Your task to perform on an android device: Is it going to rain today? Image 0: 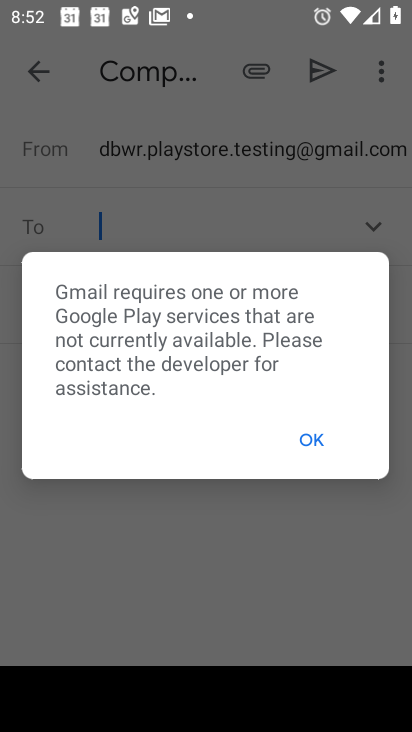
Step 0: click (308, 442)
Your task to perform on an android device: Is it going to rain today? Image 1: 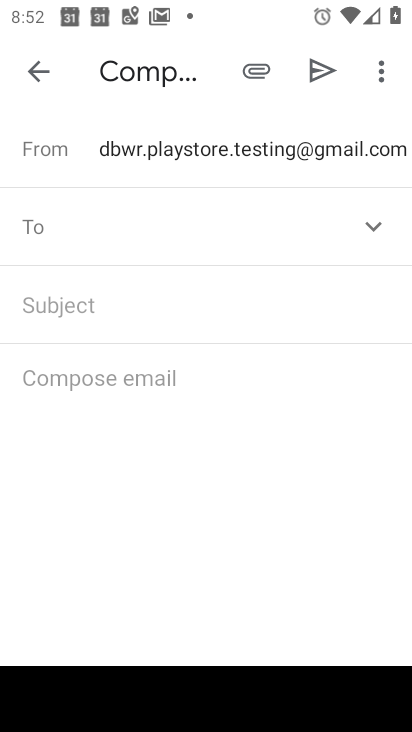
Step 1: click (36, 79)
Your task to perform on an android device: Is it going to rain today? Image 2: 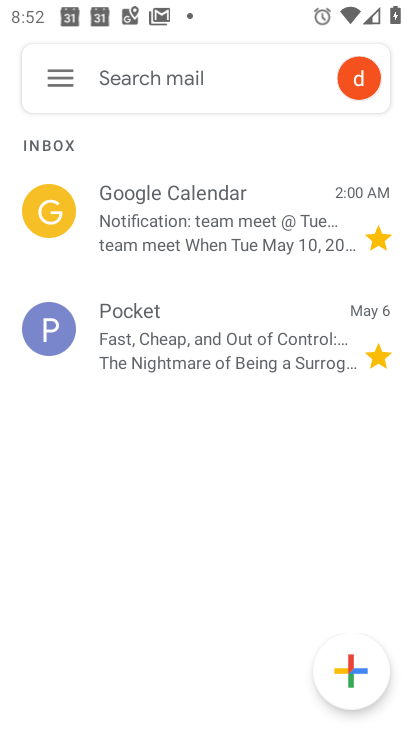
Step 2: press home button
Your task to perform on an android device: Is it going to rain today? Image 3: 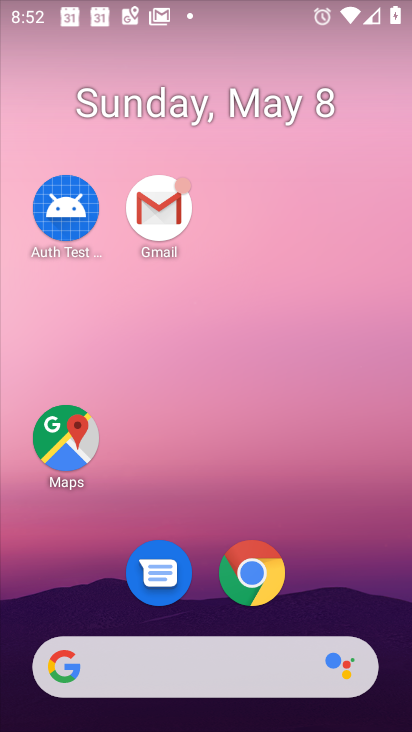
Step 3: drag from (2, 169) to (399, 478)
Your task to perform on an android device: Is it going to rain today? Image 4: 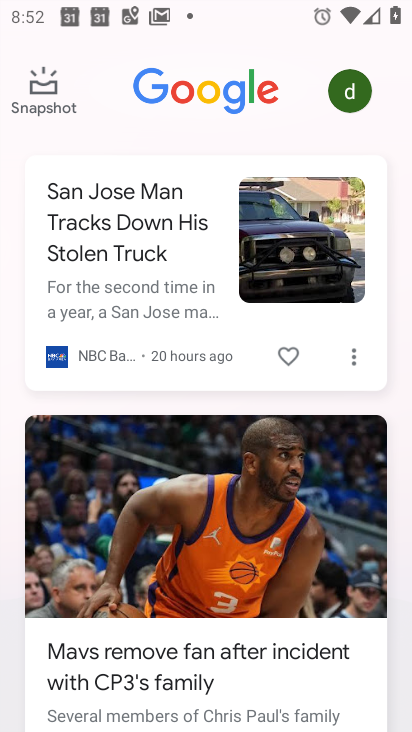
Step 4: drag from (142, 186) to (210, 574)
Your task to perform on an android device: Is it going to rain today? Image 5: 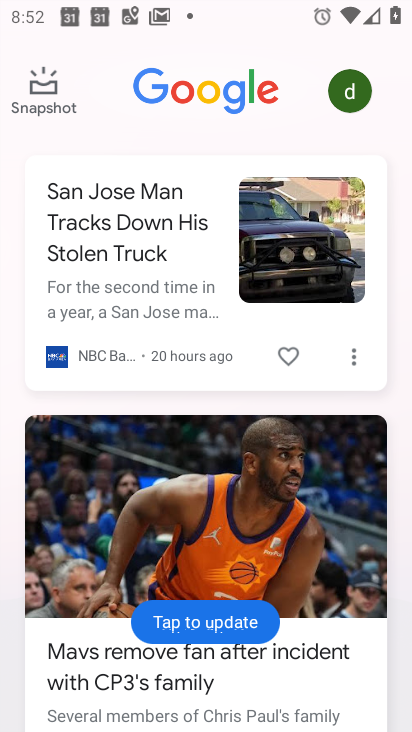
Step 5: drag from (180, 166) to (223, 527)
Your task to perform on an android device: Is it going to rain today? Image 6: 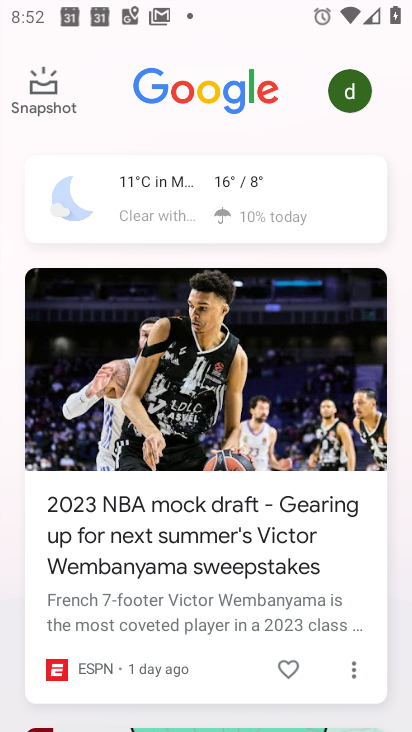
Step 6: click (238, 195)
Your task to perform on an android device: Is it going to rain today? Image 7: 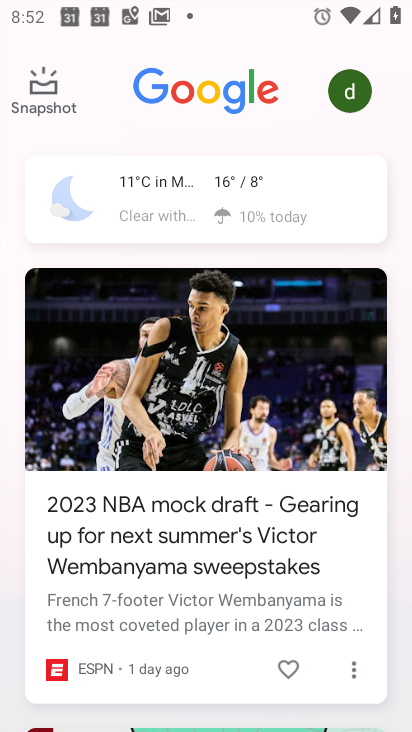
Step 7: click (239, 196)
Your task to perform on an android device: Is it going to rain today? Image 8: 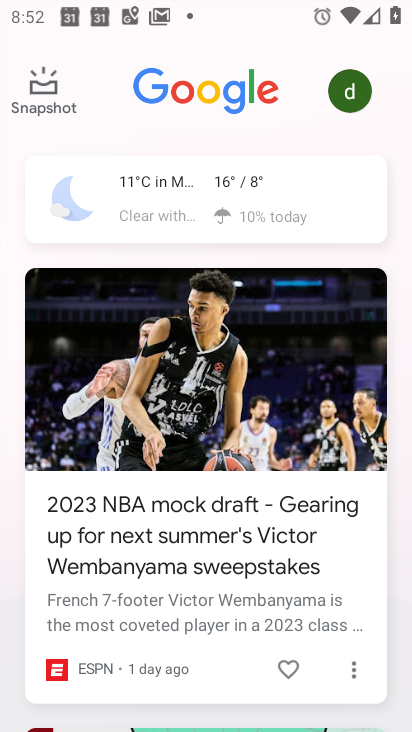
Step 8: click (239, 196)
Your task to perform on an android device: Is it going to rain today? Image 9: 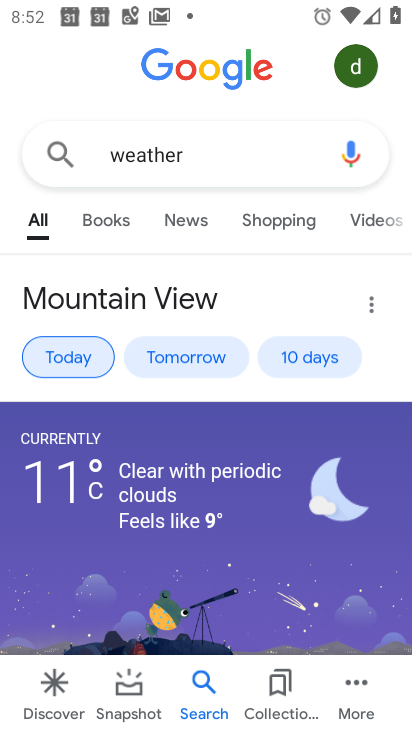
Step 9: click (173, 358)
Your task to perform on an android device: Is it going to rain today? Image 10: 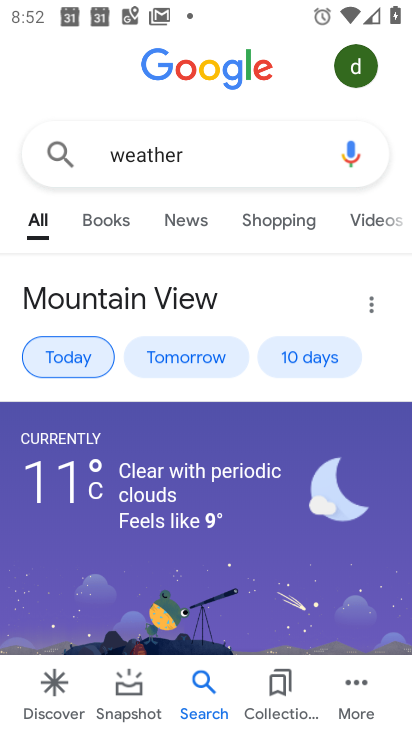
Step 10: click (173, 358)
Your task to perform on an android device: Is it going to rain today? Image 11: 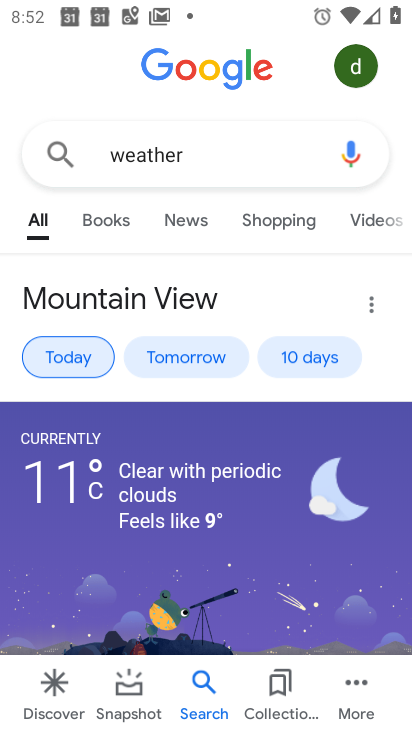
Step 11: click (181, 362)
Your task to perform on an android device: Is it going to rain today? Image 12: 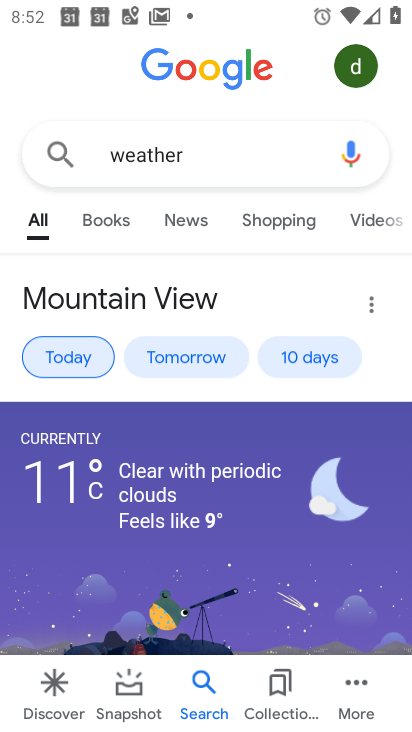
Step 12: click (183, 363)
Your task to perform on an android device: Is it going to rain today? Image 13: 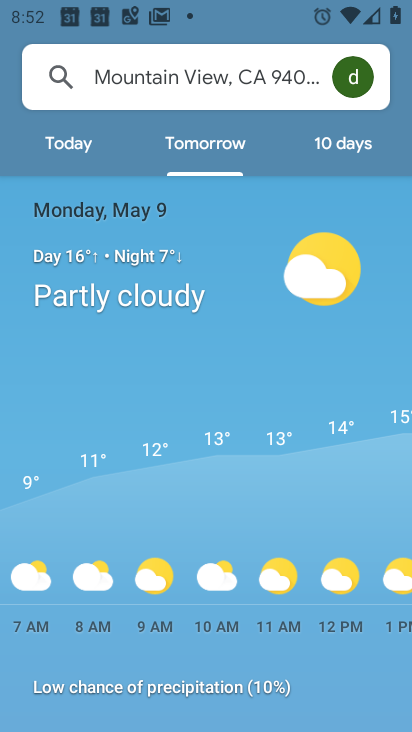
Step 13: click (328, 146)
Your task to perform on an android device: Is it going to rain today? Image 14: 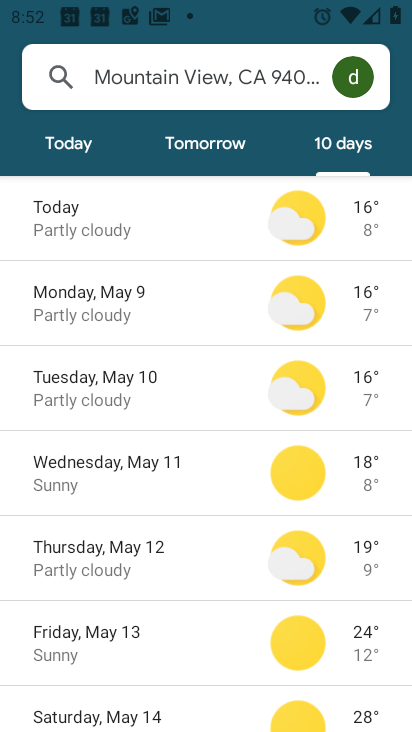
Step 14: click (328, 146)
Your task to perform on an android device: Is it going to rain today? Image 15: 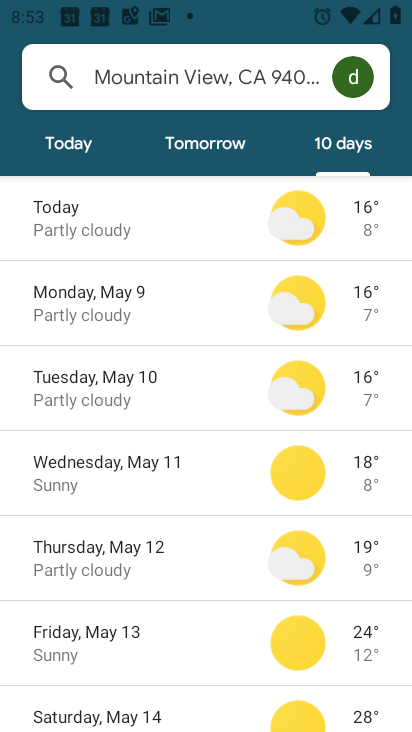
Step 15: drag from (153, 542) to (97, 56)
Your task to perform on an android device: Is it going to rain today? Image 16: 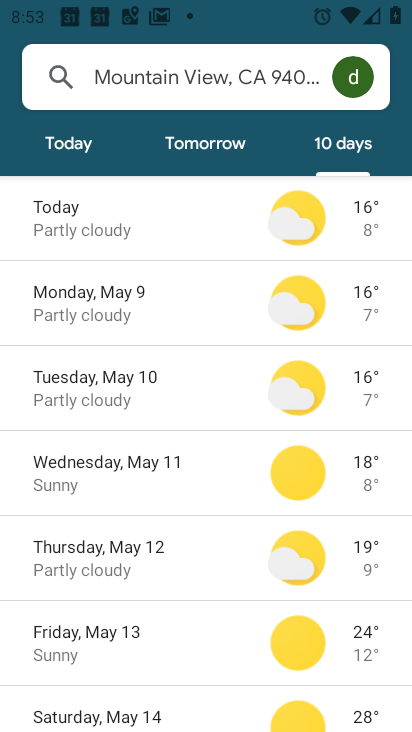
Step 16: drag from (243, 475) to (177, 103)
Your task to perform on an android device: Is it going to rain today? Image 17: 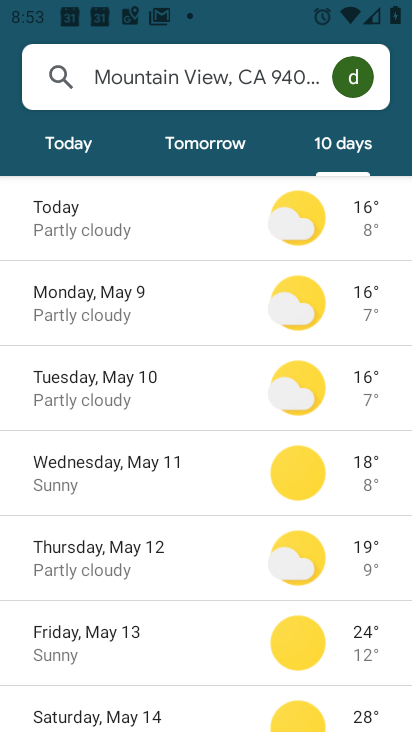
Step 17: drag from (126, 653) to (178, 220)
Your task to perform on an android device: Is it going to rain today? Image 18: 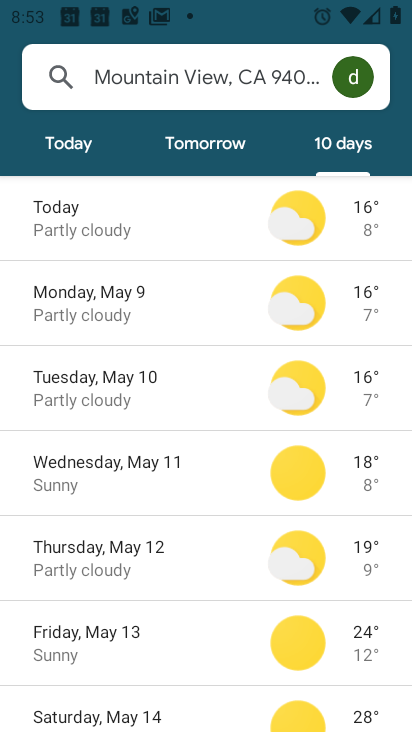
Step 18: drag from (232, 551) to (207, 188)
Your task to perform on an android device: Is it going to rain today? Image 19: 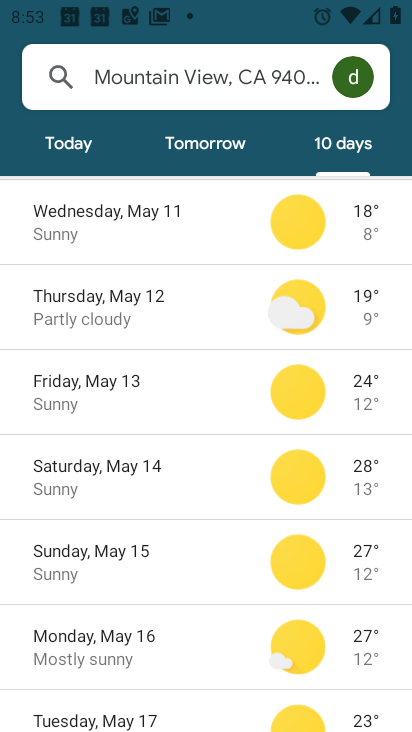
Step 19: drag from (256, 493) to (222, 302)
Your task to perform on an android device: Is it going to rain today? Image 20: 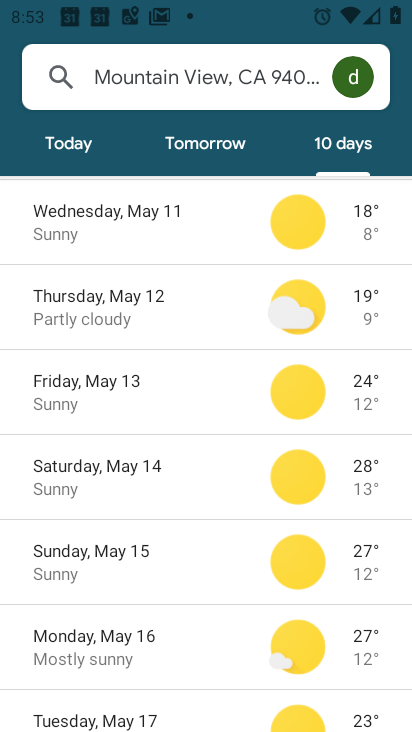
Step 20: drag from (162, 347) to (193, 518)
Your task to perform on an android device: Is it going to rain today? Image 21: 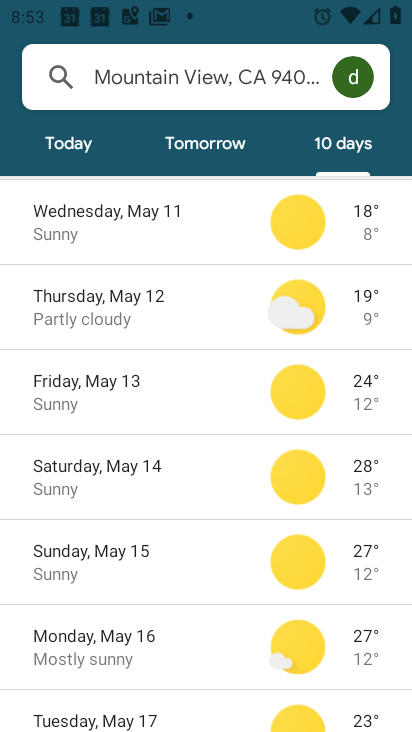
Step 21: drag from (198, 287) to (253, 613)
Your task to perform on an android device: Is it going to rain today? Image 22: 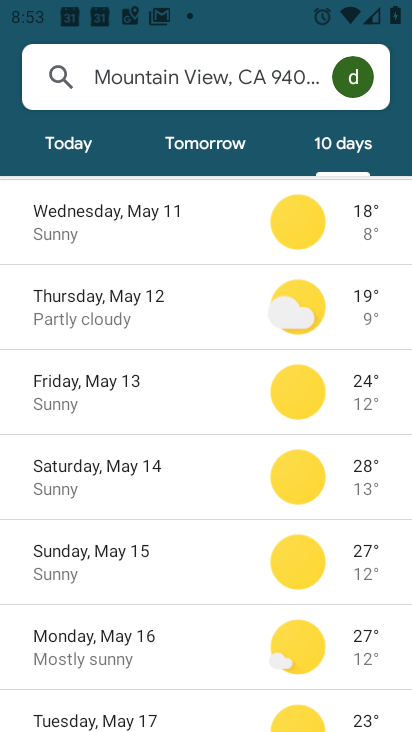
Step 22: drag from (224, 372) to (287, 569)
Your task to perform on an android device: Is it going to rain today? Image 23: 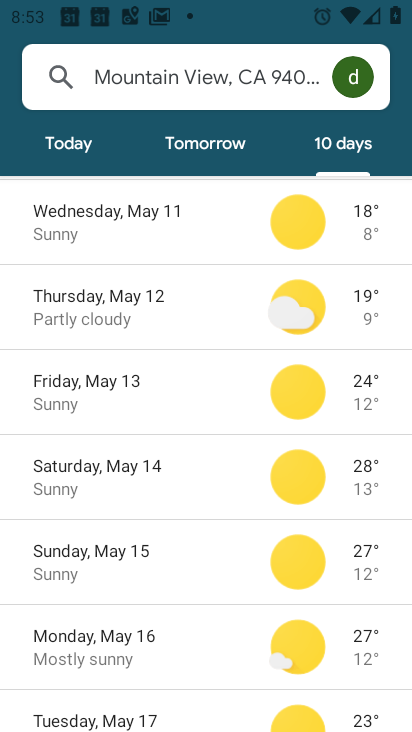
Step 23: drag from (200, 213) to (264, 617)
Your task to perform on an android device: Is it going to rain today? Image 24: 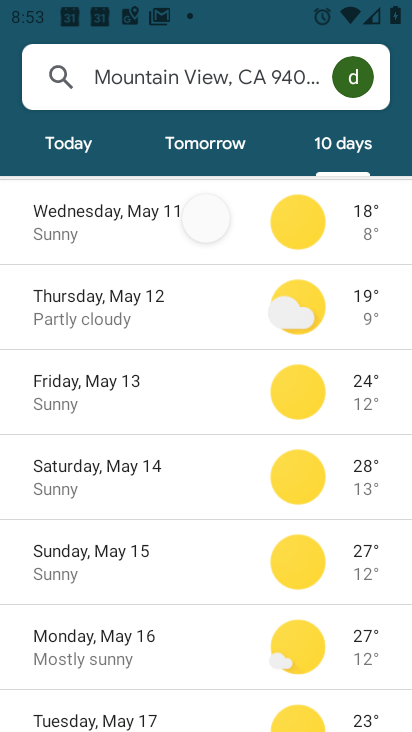
Step 24: drag from (276, 233) to (263, 478)
Your task to perform on an android device: Is it going to rain today? Image 25: 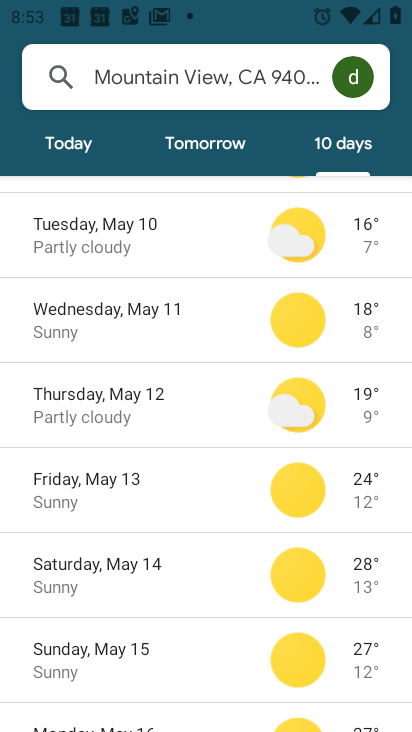
Step 25: drag from (186, 330) to (137, 686)
Your task to perform on an android device: Is it going to rain today? Image 26: 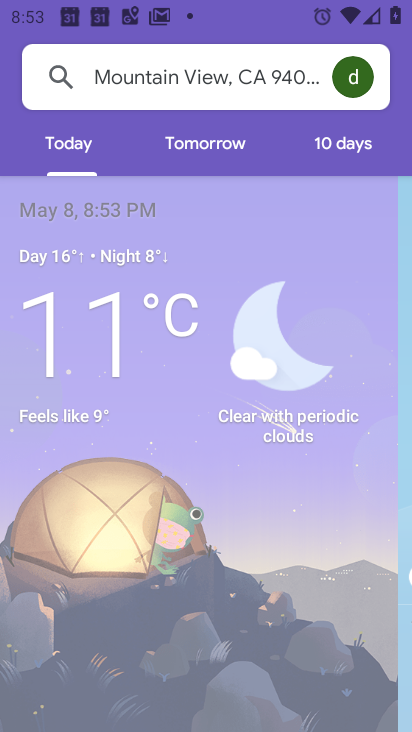
Step 26: drag from (158, 471) to (235, 55)
Your task to perform on an android device: Is it going to rain today? Image 27: 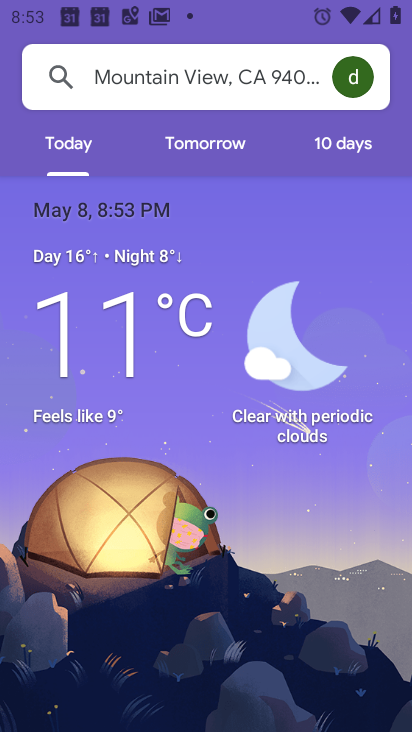
Step 27: drag from (250, 244) to (302, 598)
Your task to perform on an android device: Is it going to rain today? Image 28: 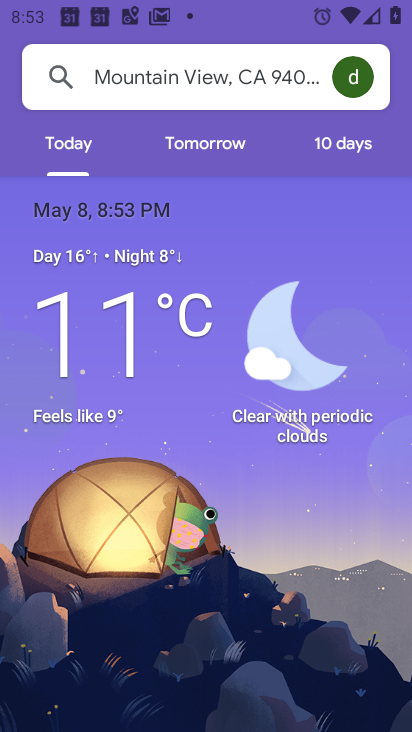
Step 28: drag from (192, 362) to (191, 105)
Your task to perform on an android device: Is it going to rain today? Image 29: 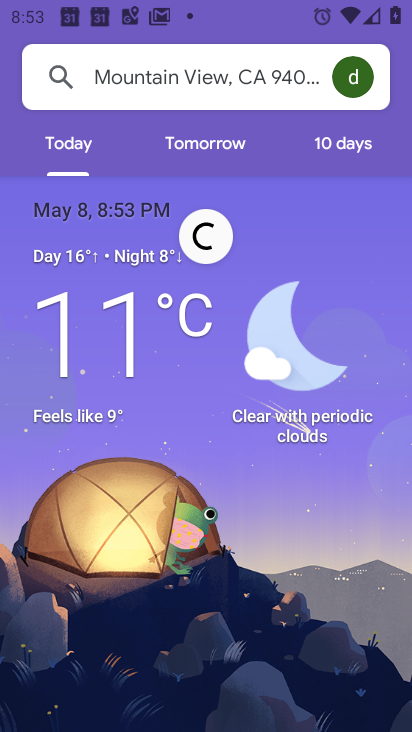
Step 29: click (298, 5)
Your task to perform on an android device: Is it going to rain today? Image 30: 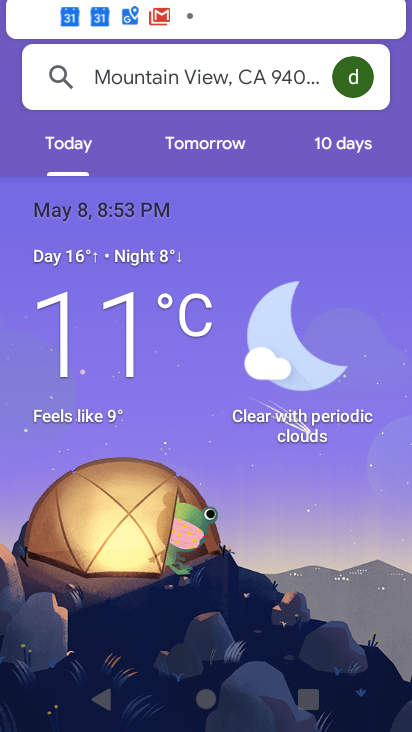
Step 30: task complete